Your task to perform on an android device: check out phone information Image 0: 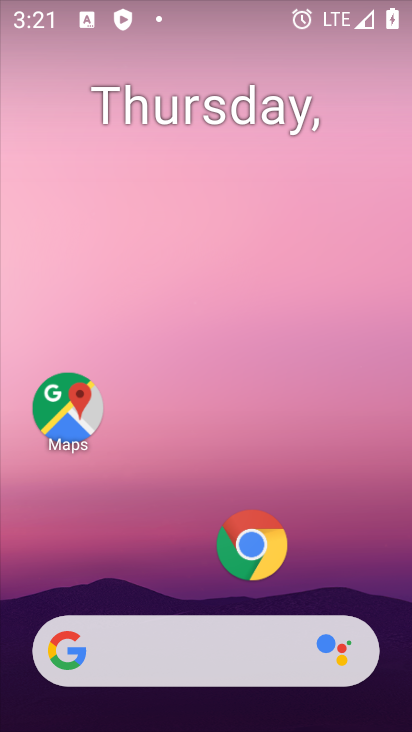
Step 0: drag from (218, 335) to (411, 6)
Your task to perform on an android device: check out phone information Image 1: 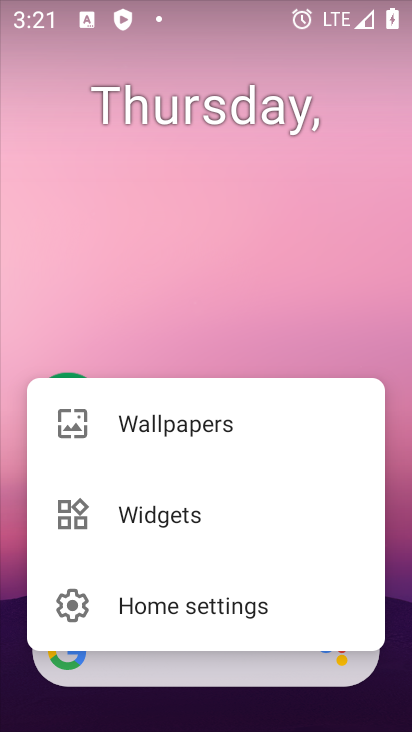
Step 1: drag from (249, 288) to (328, 17)
Your task to perform on an android device: check out phone information Image 2: 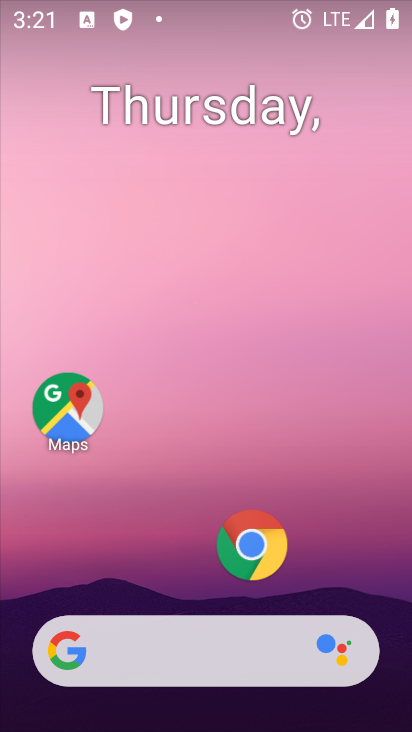
Step 2: drag from (339, 596) to (299, 26)
Your task to perform on an android device: check out phone information Image 3: 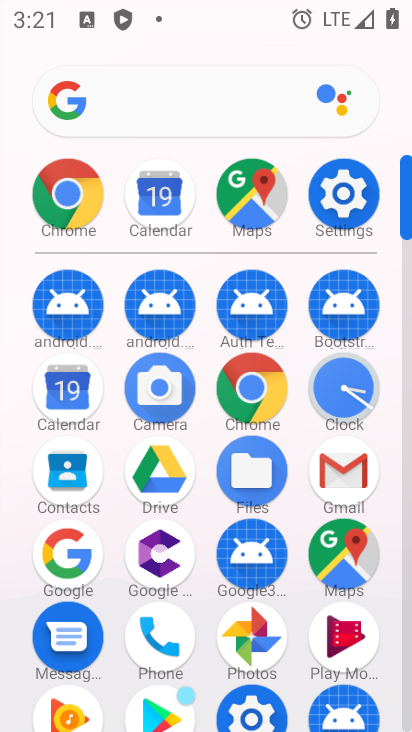
Step 3: click (356, 205)
Your task to perform on an android device: check out phone information Image 4: 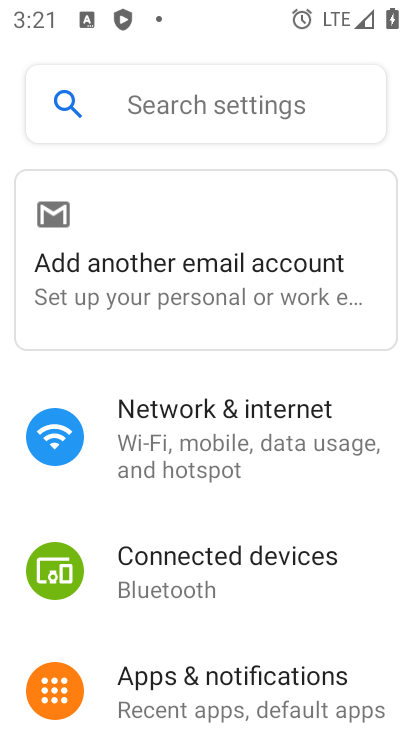
Step 4: drag from (337, 707) to (316, 39)
Your task to perform on an android device: check out phone information Image 5: 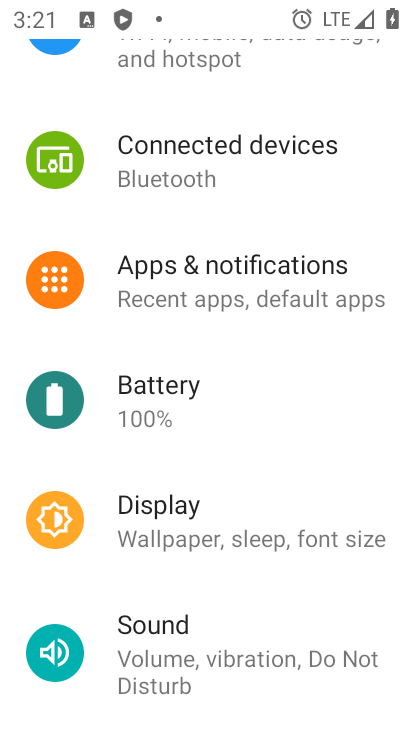
Step 5: drag from (312, 702) to (306, 97)
Your task to perform on an android device: check out phone information Image 6: 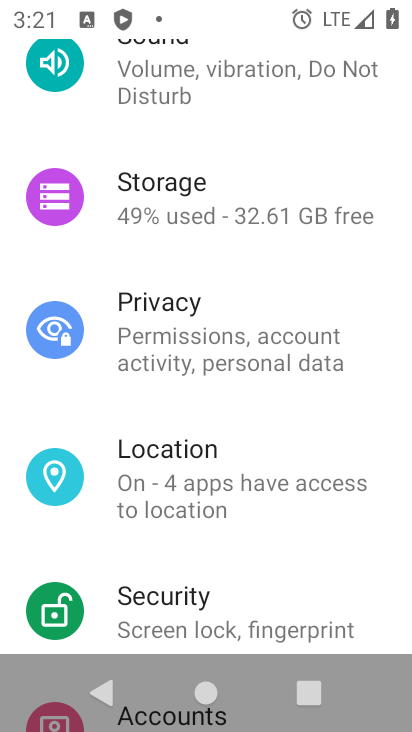
Step 6: drag from (329, 606) to (334, 72)
Your task to perform on an android device: check out phone information Image 7: 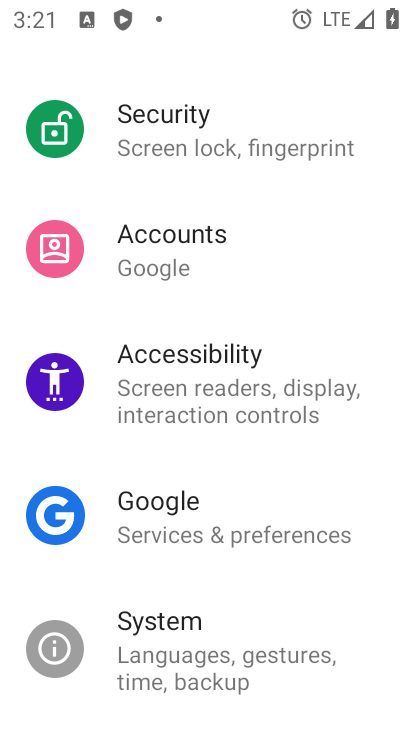
Step 7: drag from (325, 653) to (307, 138)
Your task to perform on an android device: check out phone information Image 8: 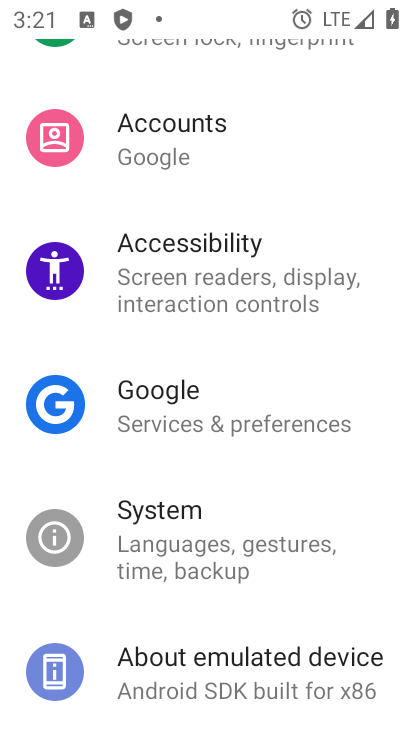
Step 8: click (324, 691)
Your task to perform on an android device: check out phone information Image 9: 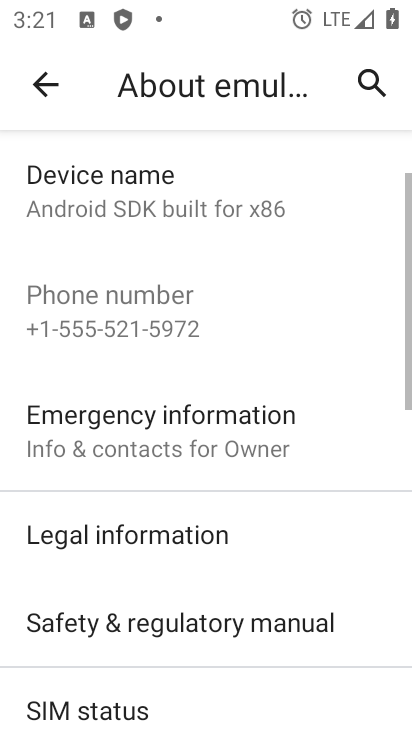
Step 9: task complete